Your task to perform on an android device: turn off translation in the chrome app Image 0: 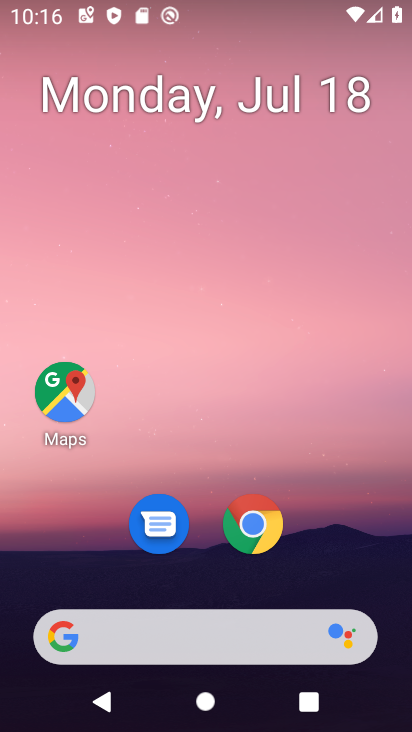
Step 0: click (267, 535)
Your task to perform on an android device: turn off translation in the chrome app Image 1: 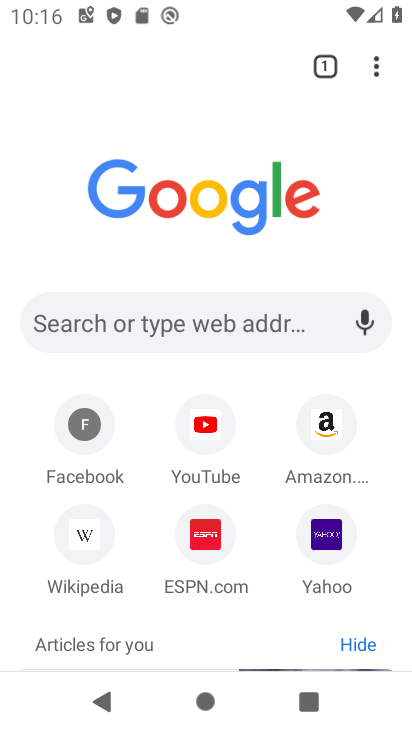
Step 1: click (373, 62)
Your task to perform on an android device: turn off translation in the chrome app Image 2: 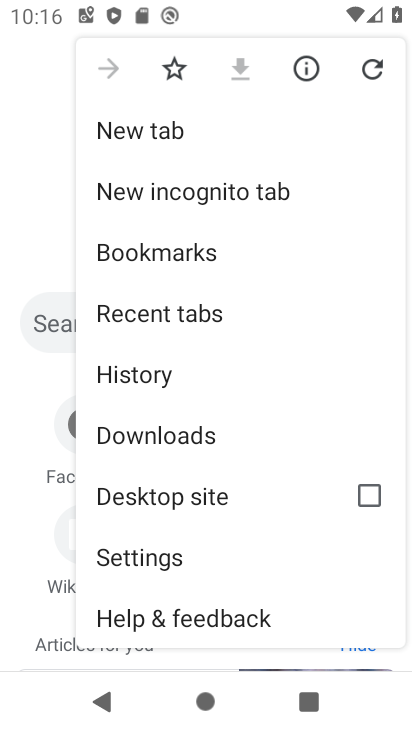
Step 2: click (188, 558)
Your task to perform on an android device: turn off translation in the chrome app Image 3: 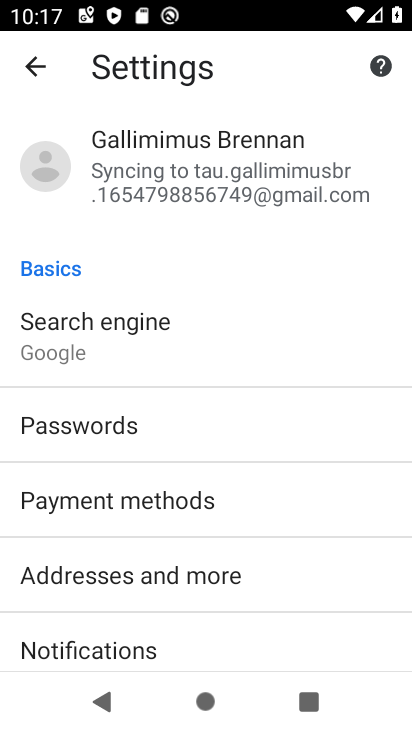
Step 3: drag from (203, 557) to (307, 214)
Your task to perform on an android device: turn off translation in the chrome app Image 4: 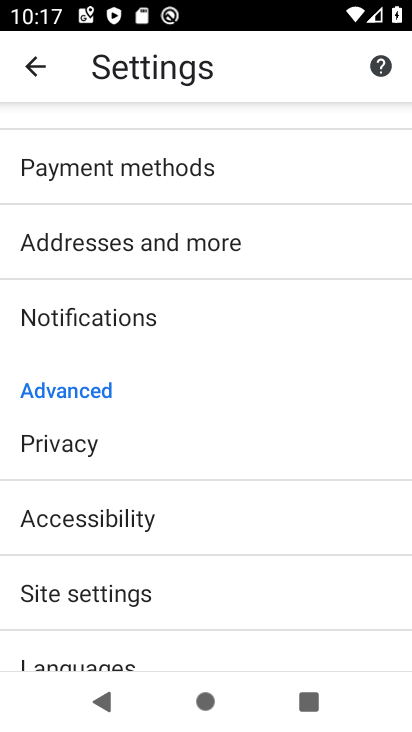
Step 4: click (232, 591)
Your task to perform on an android device: turn off translation in the chrome app Image 5: 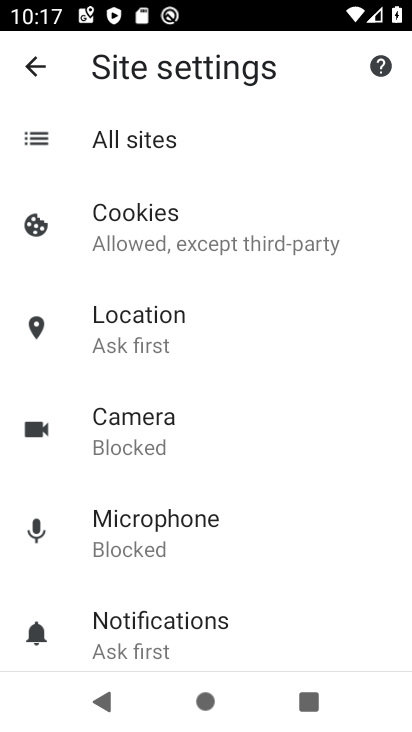
Step 5: click (40, 62)
Your task to perform on an android device: turn off translation in the chrome app Image 6: 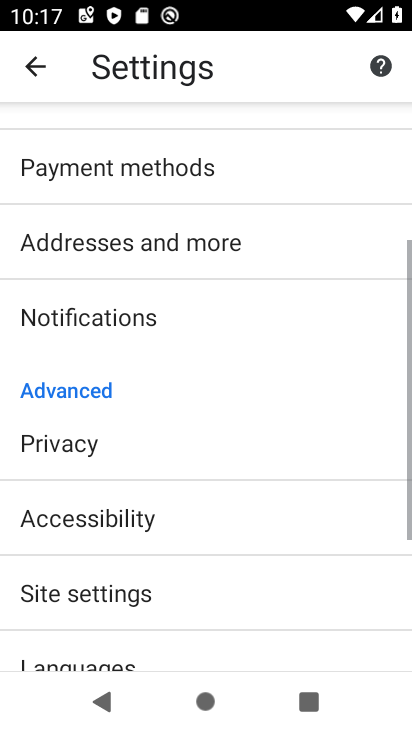
Step 6: drag from (230, 525) to (228, 192)
Your task to perform on an android device: turn off translation in the chrome app Image 7: 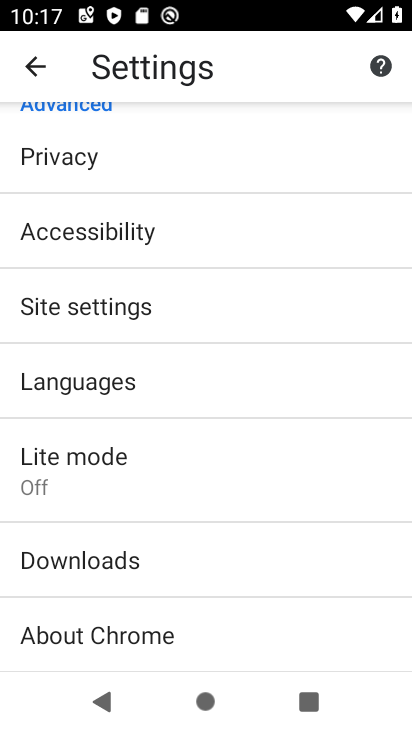
Step 7: click (184, 392)
Your task to perform on an android device: turn off translation in the chrome app Image 8: 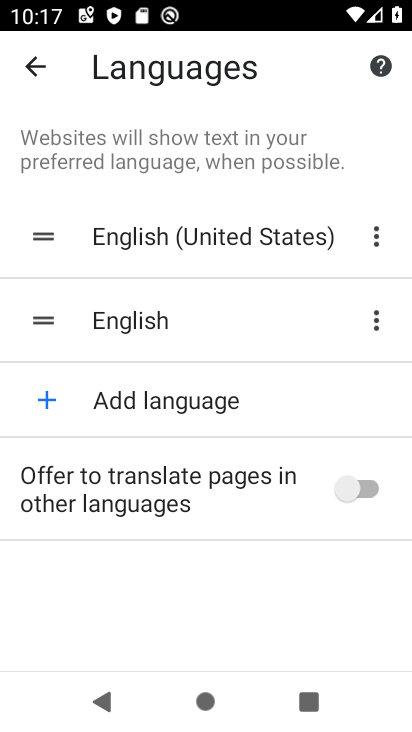
Step 8: task complete